Your task to perform on an android device: snooze an email in the gmail app Image 0: 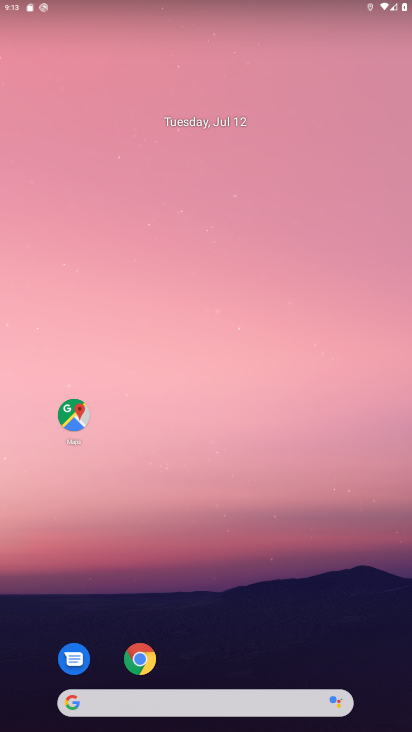
Step 0: drag from (244, 531) to (262, 149)
Your task to perform on an android device: snooze an email in the gmail app Image 1: 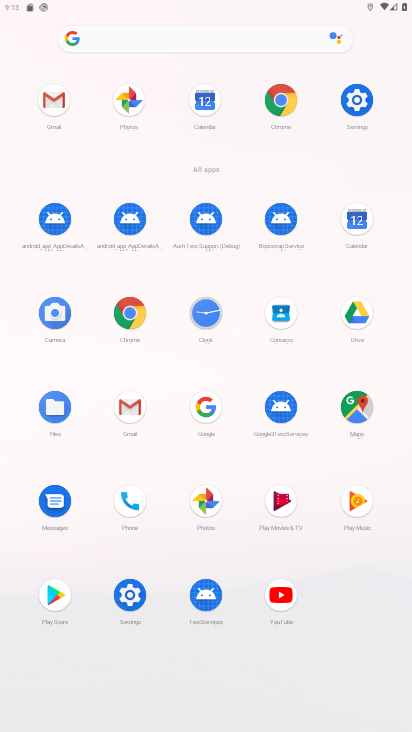
Step 1: click (57, 89)
Your task to perform on an android device: snooze an email in the gmail app Image 2: 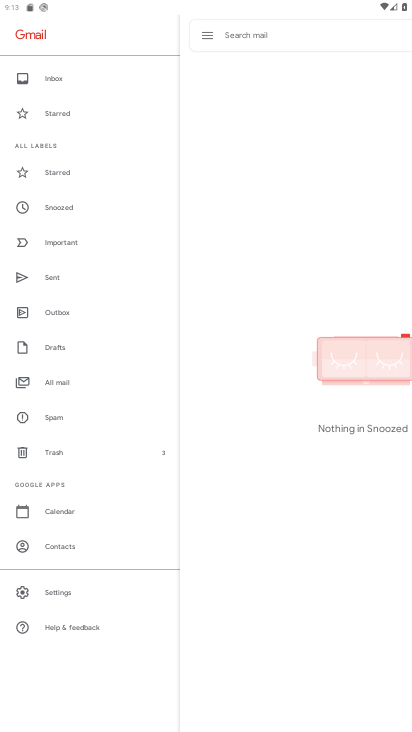
Step 2: click (58, 208)
Your task to perform on an android device: snooze an email in the gmail app Image 3: 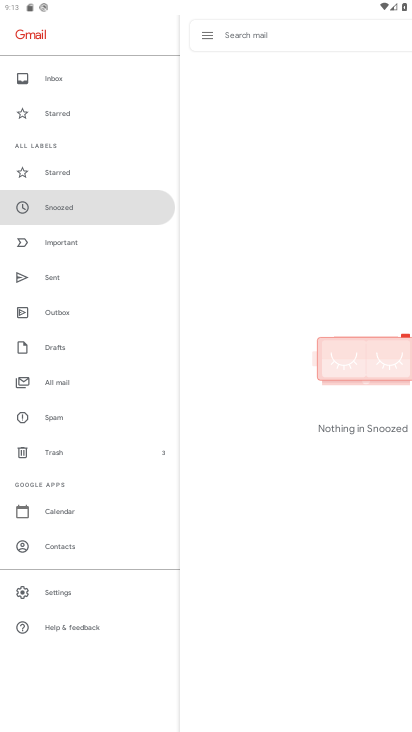
Step 3: click (60, 208)
Your task to perform on an android device: snooze an email in the gmail app Image 4: 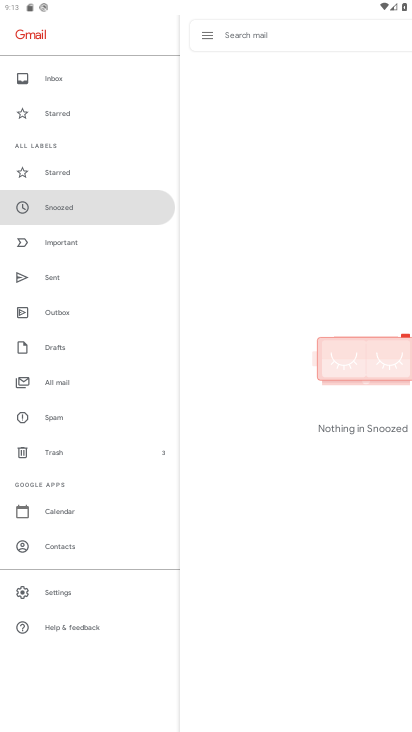
Step 4: task complete